Your task to perform on an android device: Go to network settings Image 0: 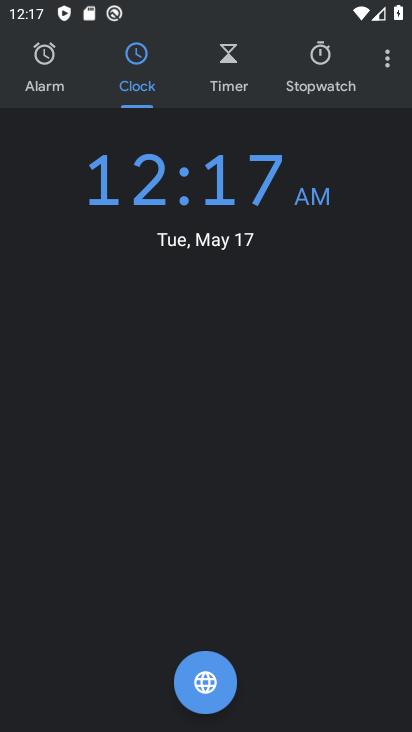
Step 0: click (383, 53)
Your task to perform on an android device: Go to network settings Image 1: 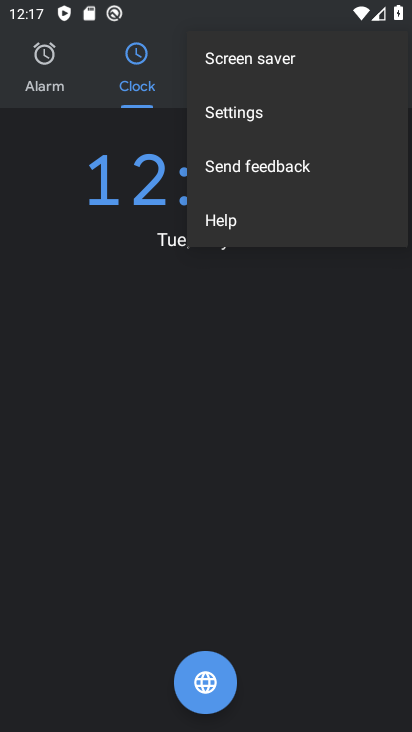
Step 1: click (232, 115)
Your task to perform on an android device: Go to network settings Image 2: 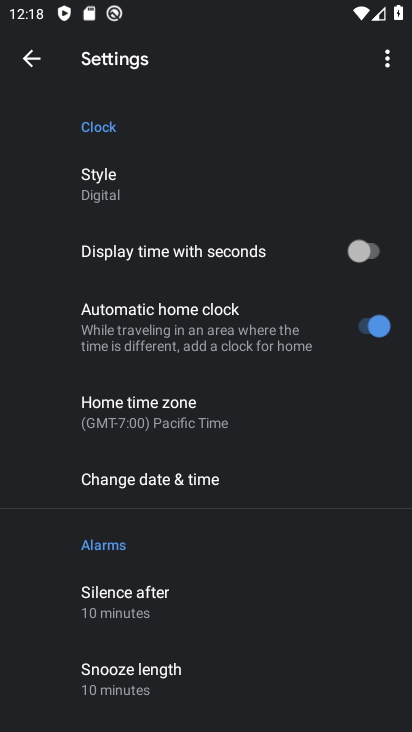
Step 2: click (32, 53)
Your task to perform on an android device: Go to network settings Image 3: 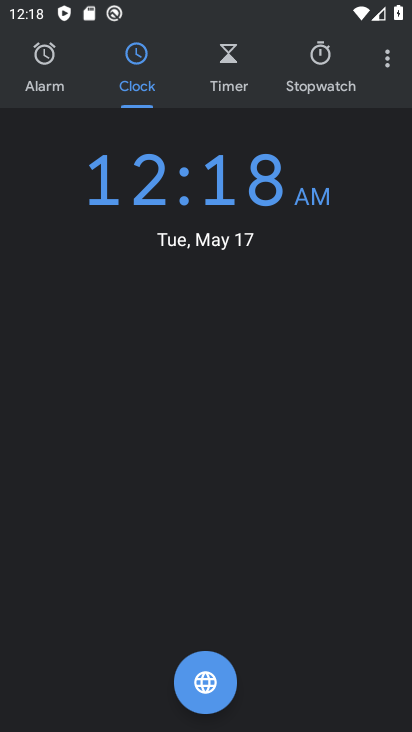
Step 3: press home button
Your task to perform on an android device: Go to network settings Image 4: 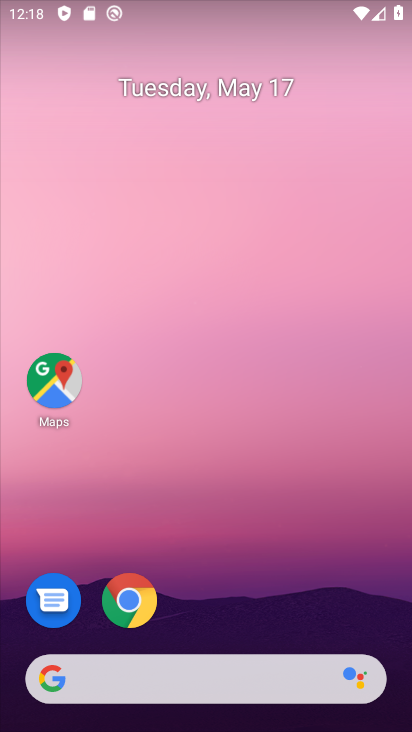
Step 4: drag from (372, 601) to (365, 385)
Your task to perform on an android device: Go to network settings Image 5: 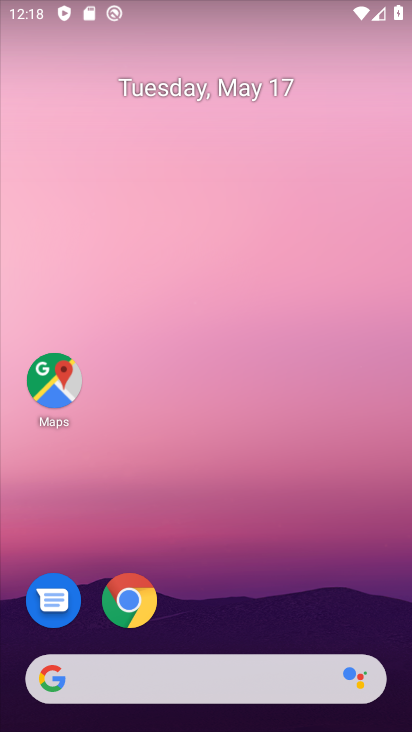
Step 5: click (384, 124)
Your task to perform on an android device: Go to network settings Image 6: 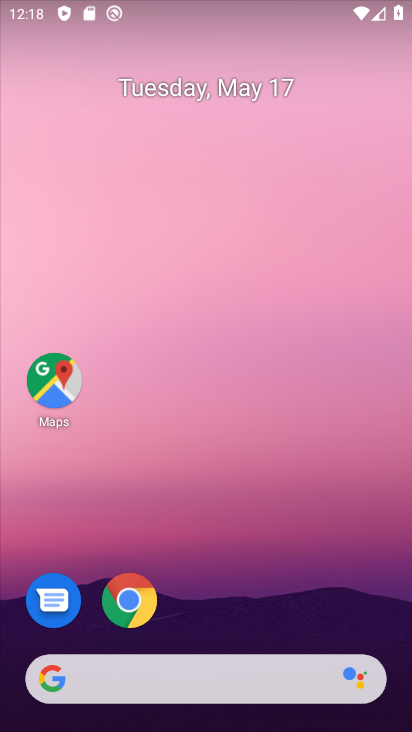
Step 6: drag from (385, 521) to (347, 141)
Your task to perform on an android device: Go to network settings Image 7: 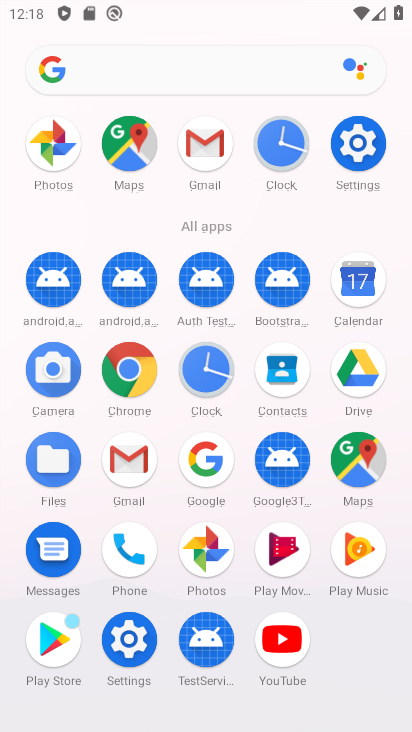
Step 7: click (356, 161)
Your task to perform on an android device: Go to network settings Image 8: 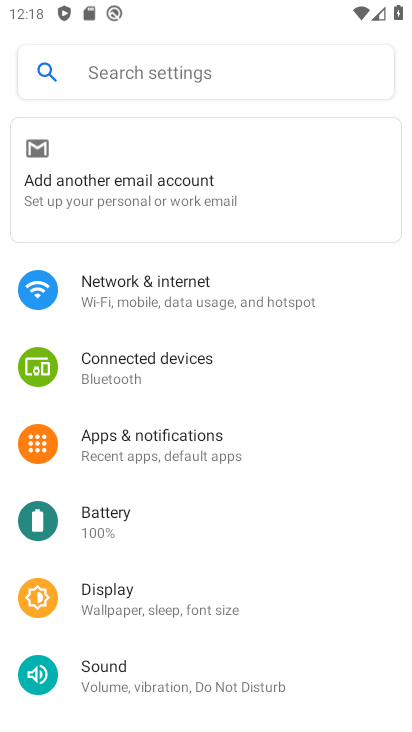
Step 8: drag from (352, 536) to (359, 303)
Your task to perform on an android device: Go to network settings Image 9: 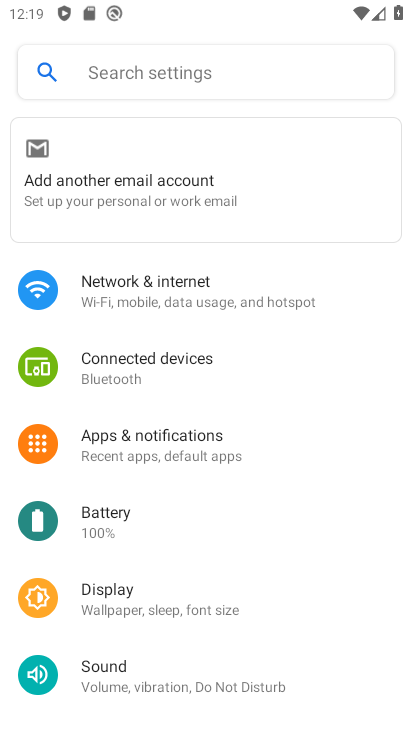
Step 9: drag from (341, 658) to (376, 400)
Your task to perform on an android device: Go to network settings Image 10: 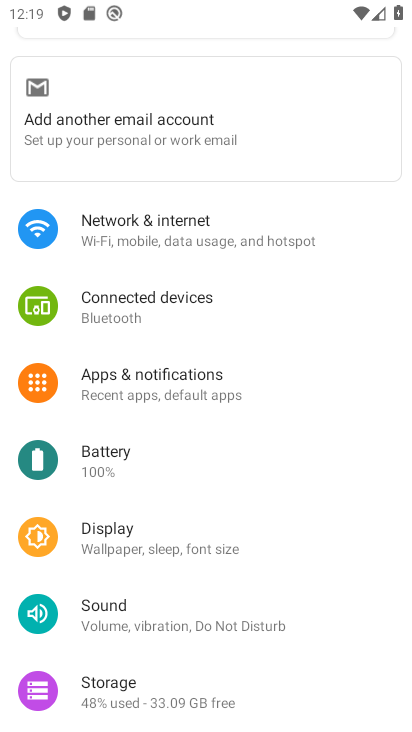
Step 10: click (177, 235)
Your task to perform on an android device: Go to network settings Image 11: 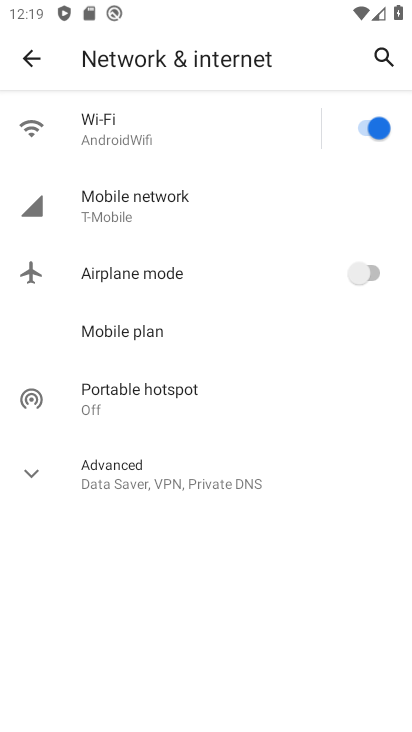
Step 11: click (144, 198)
Your task to perform on an android device: Go to network settings Image 12: 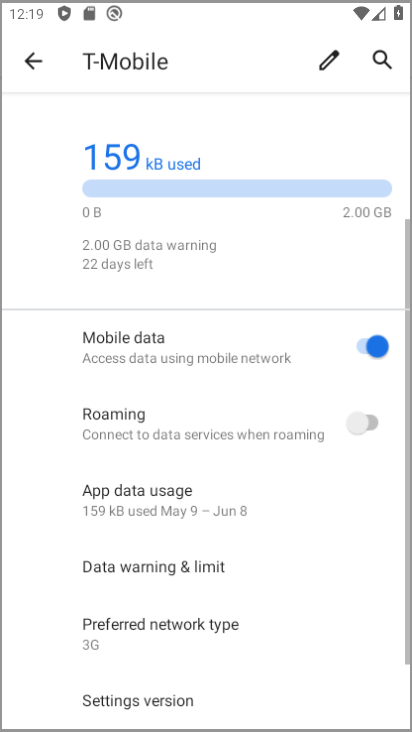
Step 12: task complete